Your task to perform on an android device: Open the phone app and click the voicemail tab. Image 0: 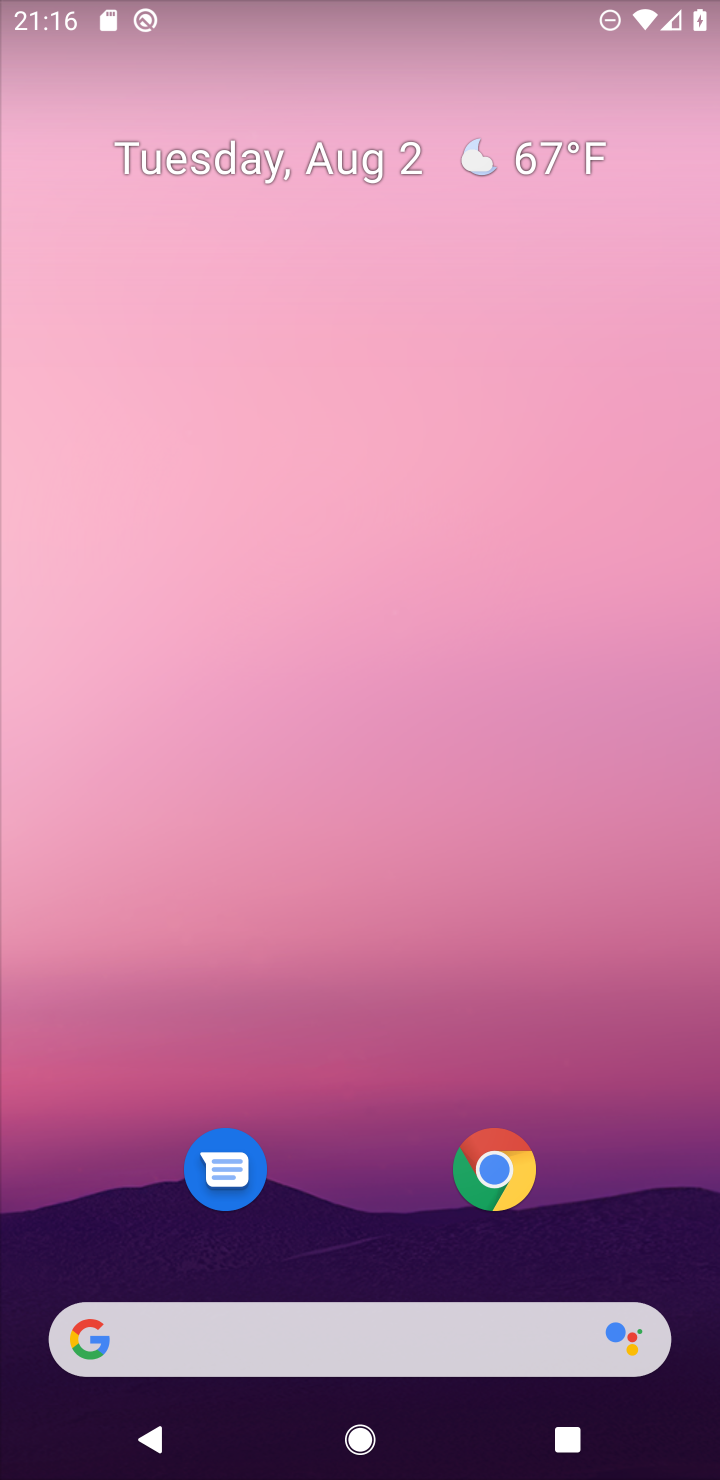
Step 0: drag from (346, 1247) to (366, 1)
Your task to perform on an android device: Open the phone app and click the voicemail tab. Image 1: 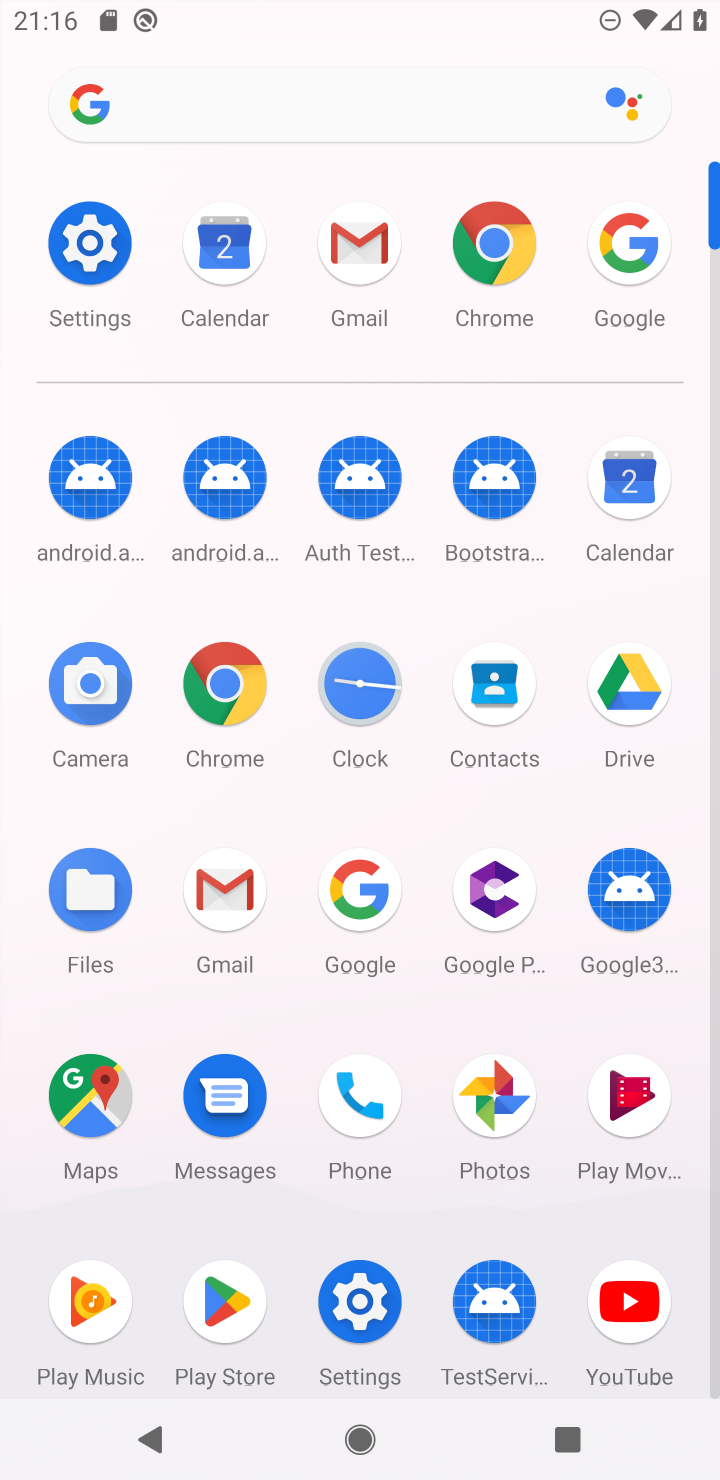
Step 1: click (366, 1101)
Your task to perform on an android device: Open the phone app and click the voicemail tab. Image 2: 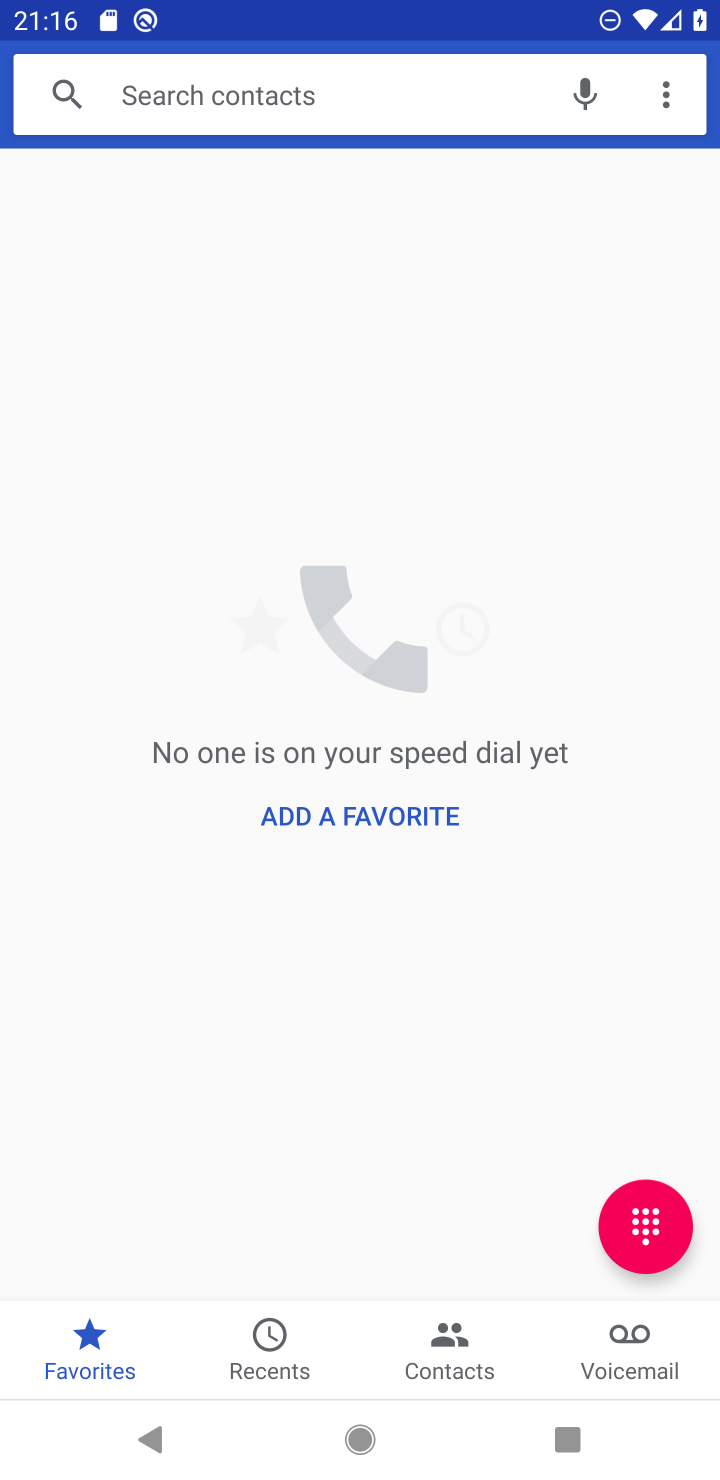
Step 2: click (612, 1353)
Your task to perform on an android device: Open the phone app and click the voicemail tab. Image 3: 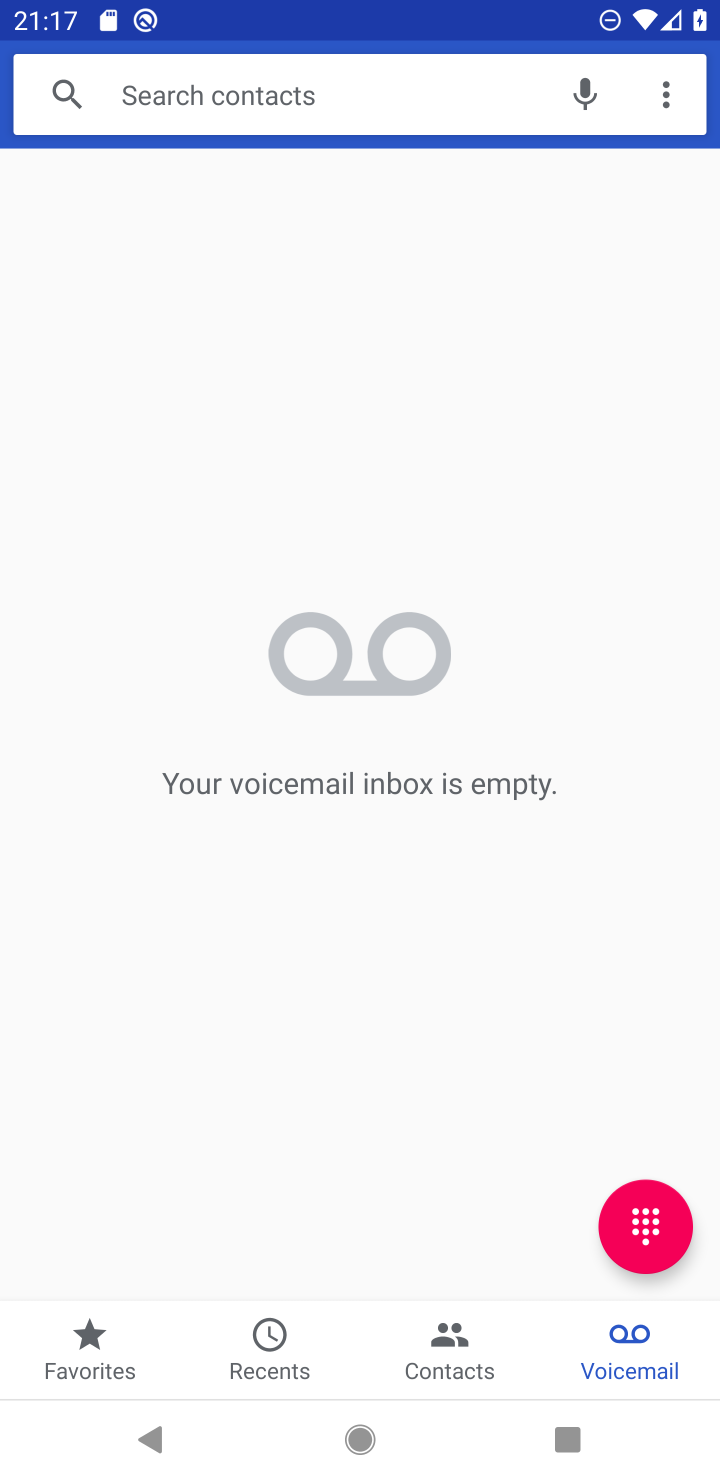
Step 3: task complete